Your task to perform on an android device: turn off data saver in the chrome app Image 0: 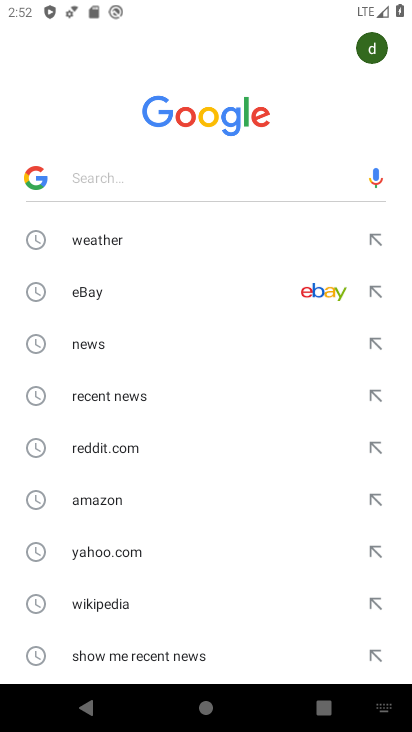
Step 0: press back button
Your task to perform on an android device: turn off data saver in the chrome app Image 1: 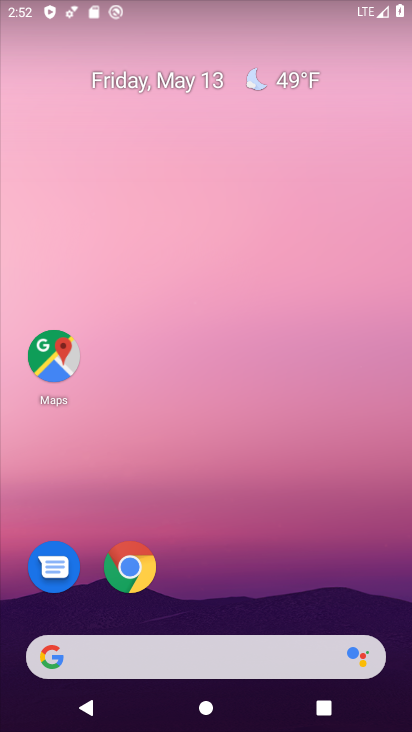
Step 1: drag from (234, 627) to (182, 82)
Your task to perform on an android device: turn off data saver in the chrome app Image 2: 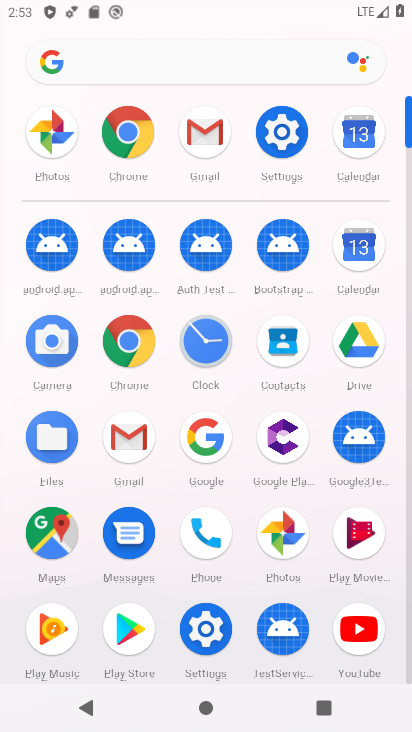
Step 2: click (142, 131)
Your task to perform on an android device: turn off data saver in the chrome app Image 3: 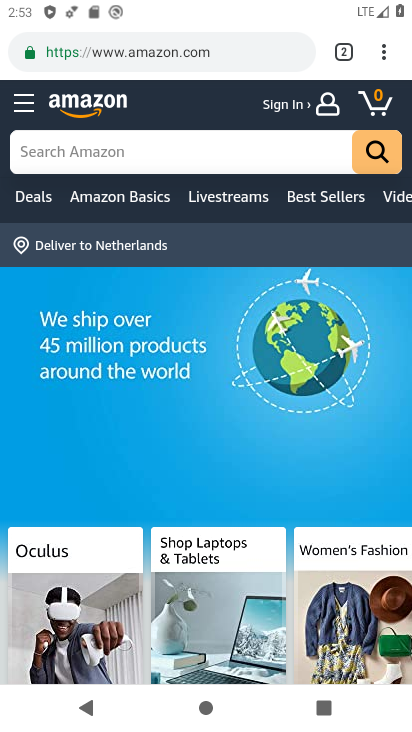
Step 3: click (396, 49)
Your task to perform on an android device: turn off data saver in the chrome app Image 4: 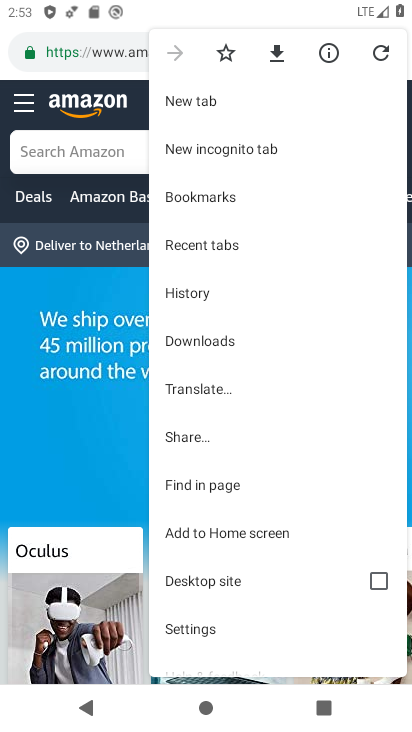
Step 4: click (228, 624)
Your task to perform on an android device: turn off data saver in the chrome app Image 5: 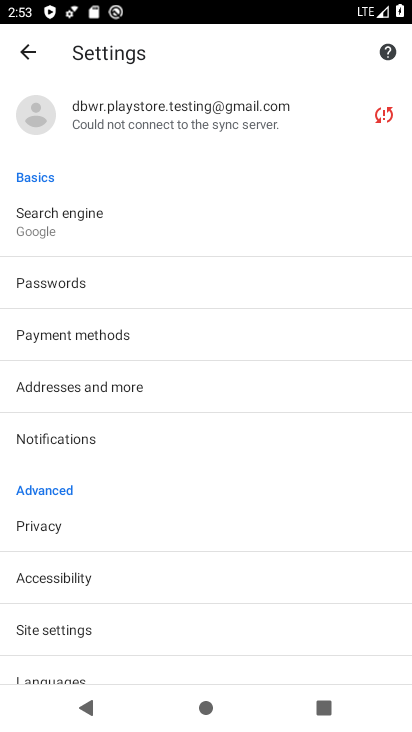
Step 5: click (91, 528)
Your task to perform on an android device: turn off data saver in the chrome app Image 6: 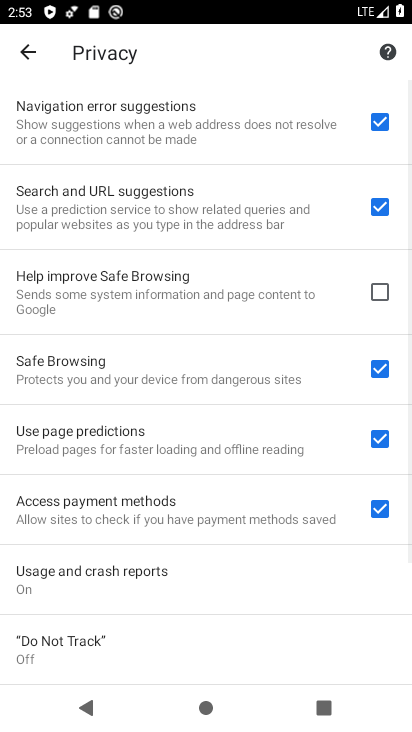
Step 6: click (13, 51)
Your task to perform on an android device: turn off data saver in the chrome app Image 7: 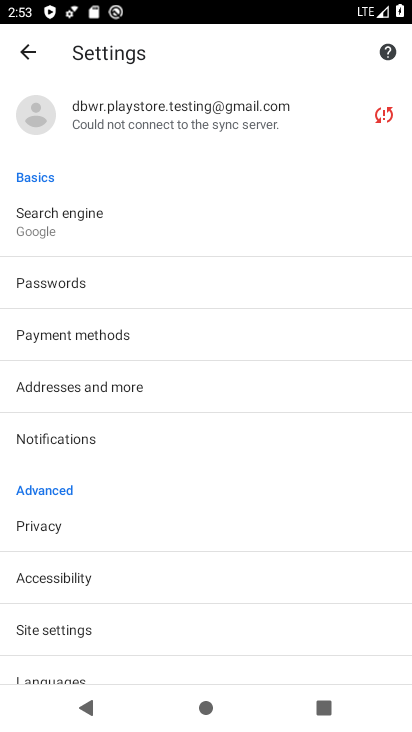
Step 7: drag from (83, 639) to (37, 268)
Your task to perform on an android device: turn off data saver in the chrome app Image 8: 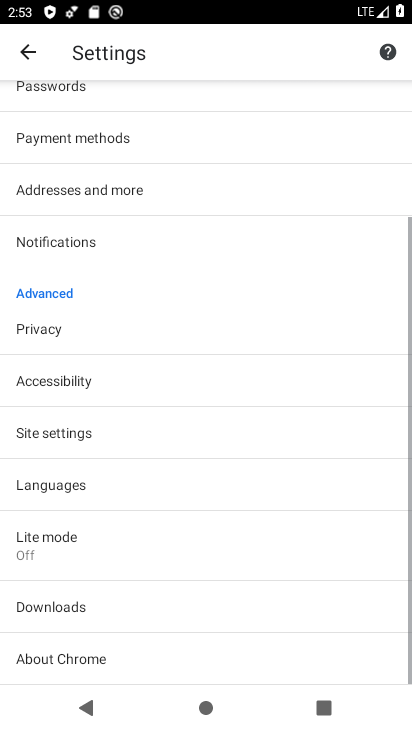
Step 8: click (72, 543)
Your task to perform on an android device: turn off data saver in the chrome app Image 9: 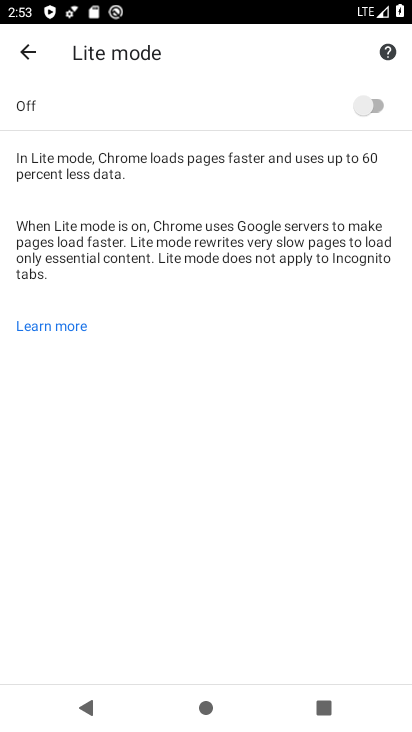
Step 9: task complete